Your task to perform on an android device: open app "Facebook" (install if not already installed) Image 0: 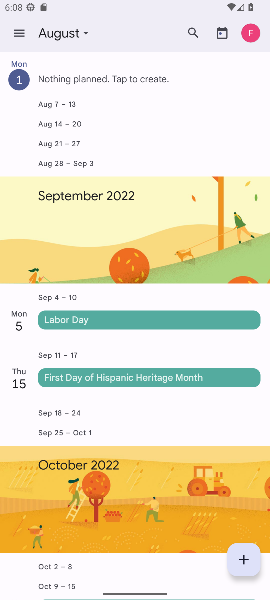
Step 0: press home button
Your task to perform on an android device: open app "Facebook" (install if not already installed) Image 1: 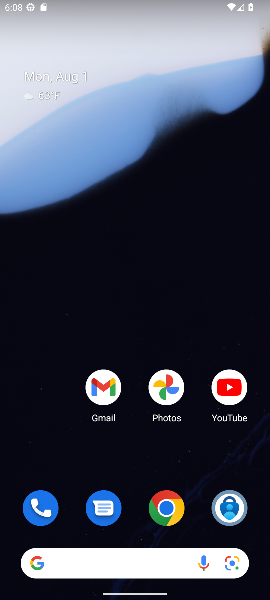
Step 1: drag from (162, 549) to (116, 94)
Your task to perform on an android device: open app "Facebook" (install if not already installed) Image 2: 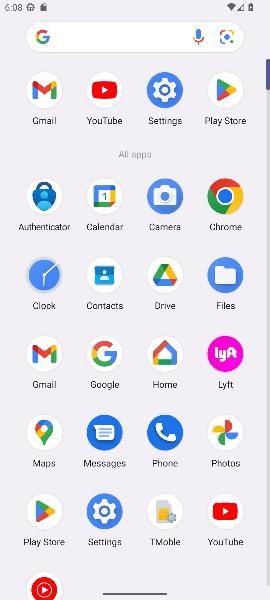
Step 2: click (43, 515)
Your task to perform on an android device: open app "Facebook" (install if not already installed) Image 3: 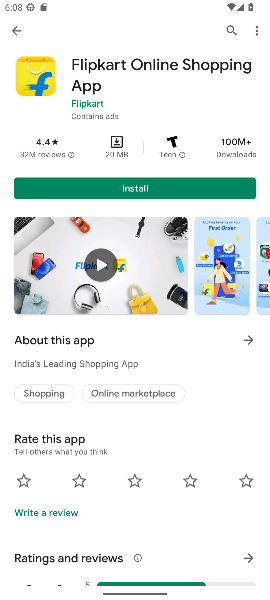
Step 3: click (14, 33)
Your task to perform on an android device: open app "Facebook" (install if not already installed) Image 4: 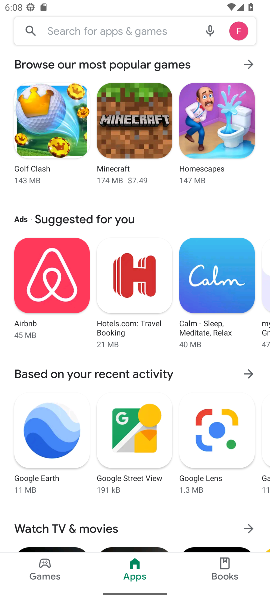
Step 4: click (92, 32)
Your task to perform on an android device: open app "Facebook" (install if not already installed) Image 5: 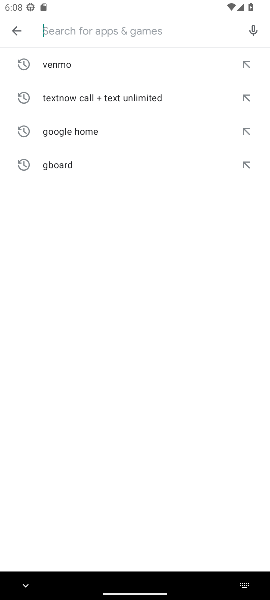
Step 5: type "Facebook"
Your task to perform on an android device: open app "Facebook" (install if not already installed) Image 6: 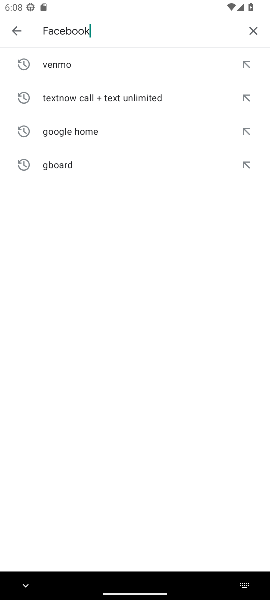
Step 6: type ""
Your task to perform on an android device: open app "Facebook" (install if not already installed) Image 7: 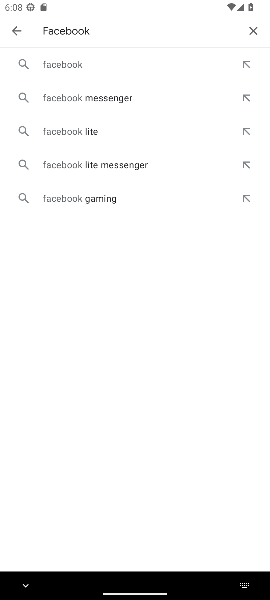
Step 7: click (44, 61)
Your task to perform on an android device: open app "Facebook" (install if not already installed) Image 8: 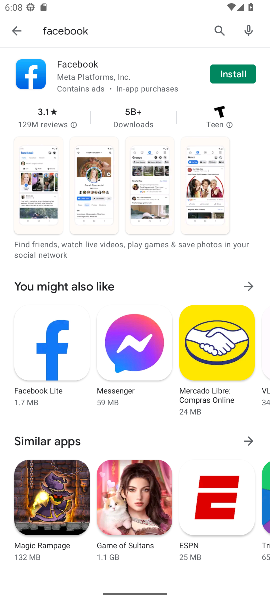
Step 8: click (239, 70)
Your task to perform on an android device: open app "Facebook" (install if not already installed) Image 9: 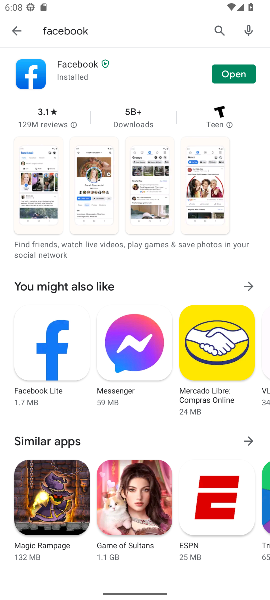
Step 9: click (236, 67)
Your task to perform on an android device: open app "Facebook" (install if not already installed) Image 10: 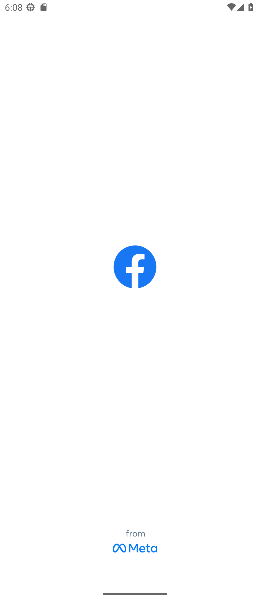
Step 10: task complete